Your task to perform on an android device: turn on priority inbox in the gmail app Image 0: 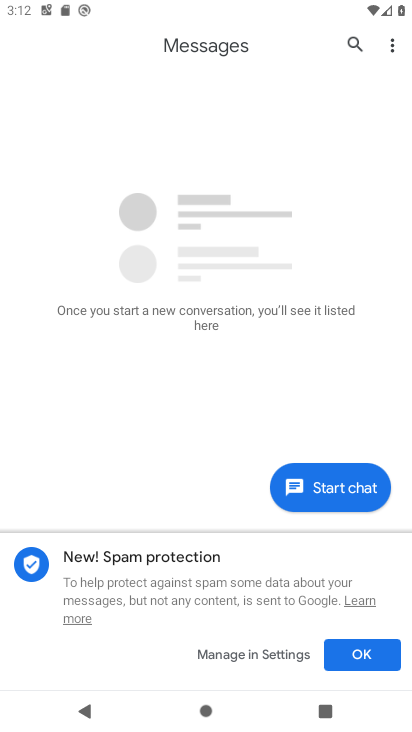
Step 0: press home button
Your task to perform on an android device: turn on priority inbox in the gmail app Image 1: 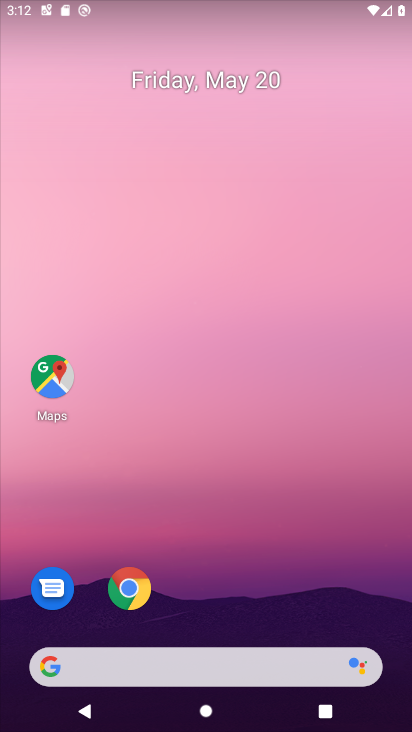
Step 1: drag from (281, 513) to (309, 115)
Your task to perform on an android device: turn on priority inbox in the gmail app Image 2: 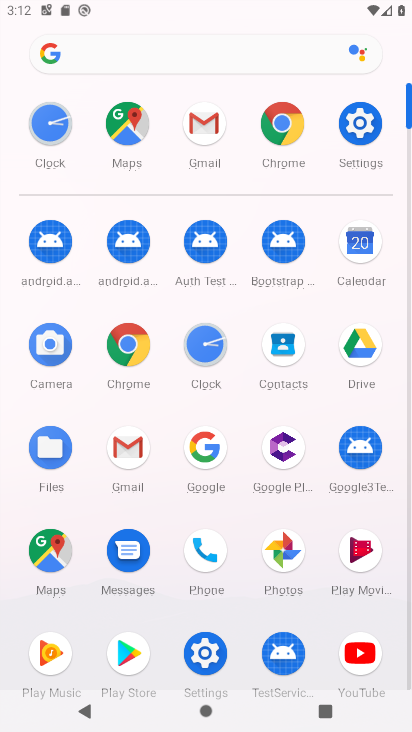
Step 2: click (211, 129)
Your task to perform on an android device: turn on priority inbox in the gmail app Image 3: 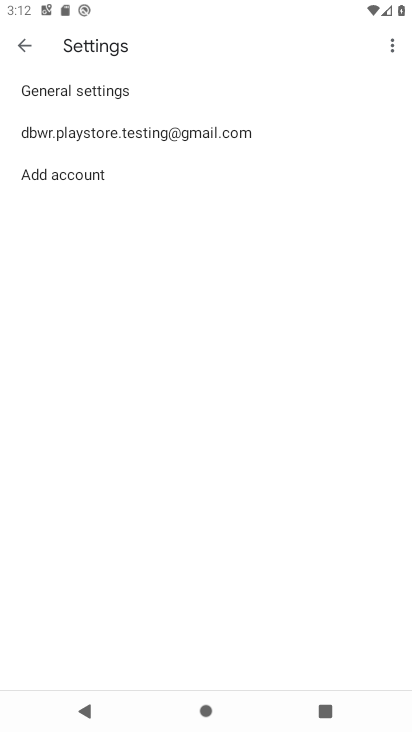
Step 3: click (211, 129)
Your task to perform on an android device: turn on priority inbox in the gmail app Image 4: 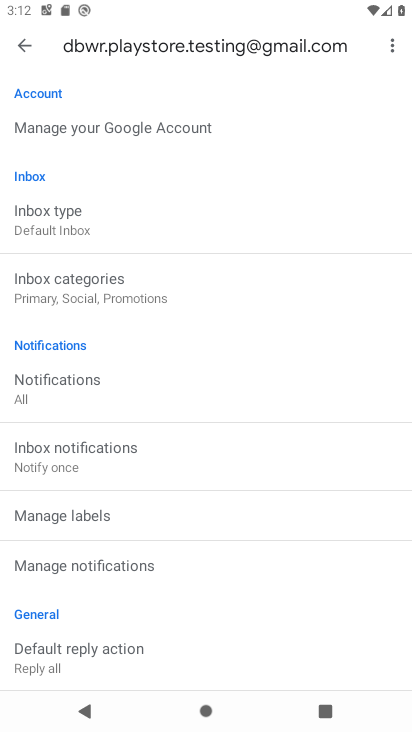
Step 4: click (232, 437)
Your task to perform on an android device: turn on priority inbox in the gmail app Image 5: 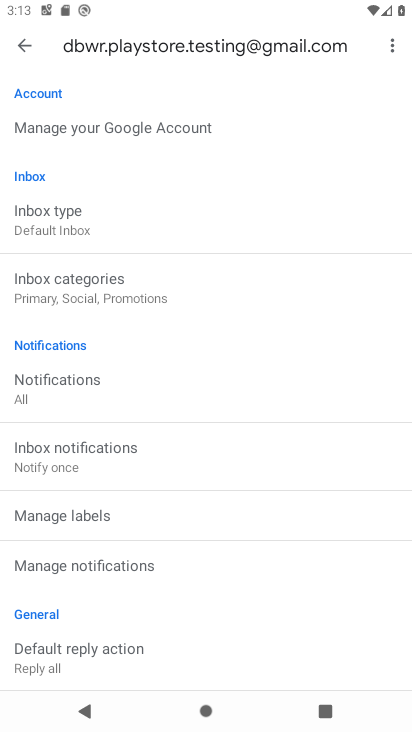
Step 5: click (73, 228)
Your task to perform on an android device: turn on priority inbox in the gmail app Image 6: 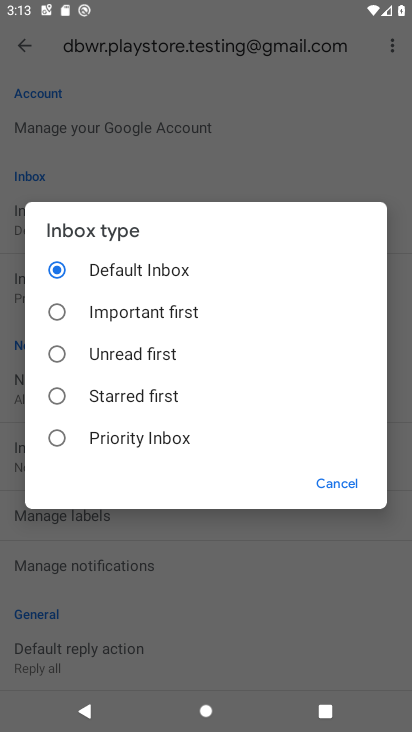
Step 6: task complete